Your task to perform on an android device: Open ESPN.com Image 0: 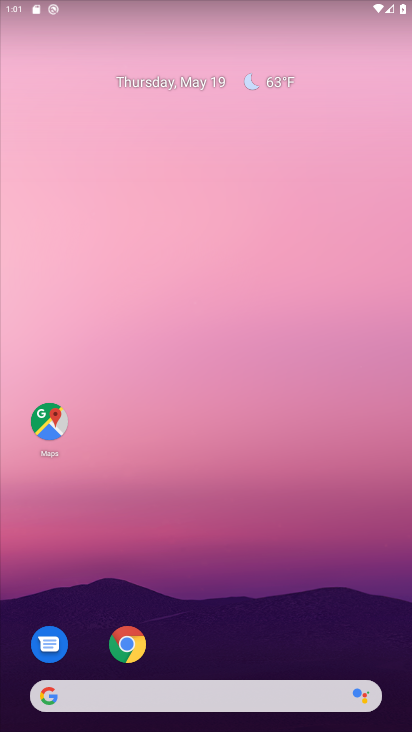
Step 0: click (130, 642)
Your task to perform on an android device: Open ESPN.com Image 1: 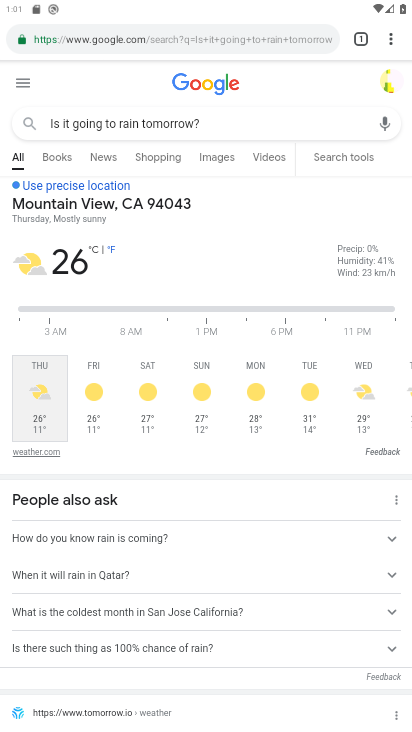
Step 1: click (131, 45)
Your task to perform on an android device: Open ESPN.com Image 2: 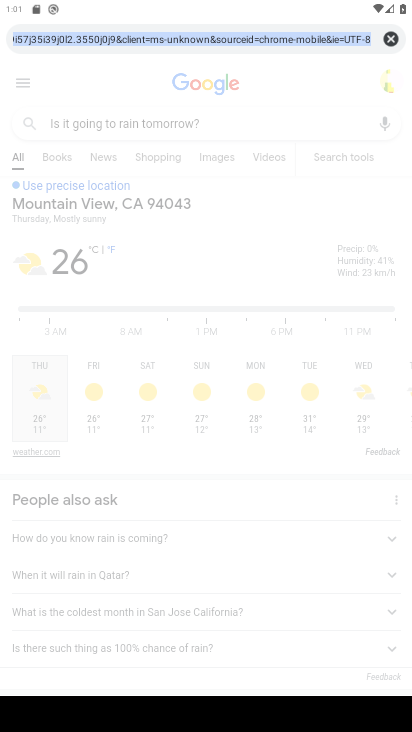
Step 2: type "ESPN.com"
Your task to perform on an android device: Open ESPN.com Image 3: 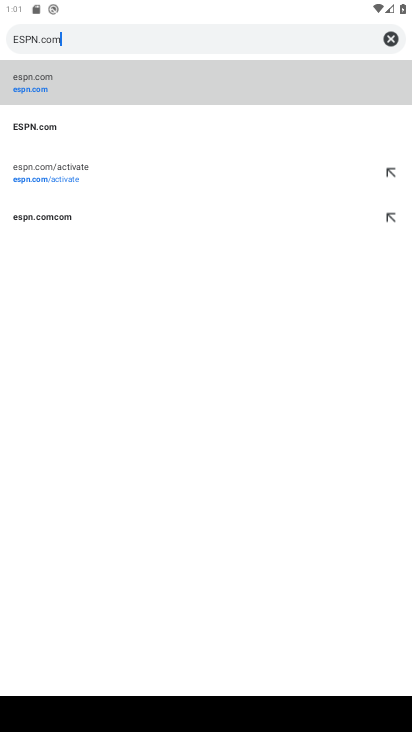
Step 3: click (58, 131)
Your task to perform on an android device: Open ESPN.com Image 4: 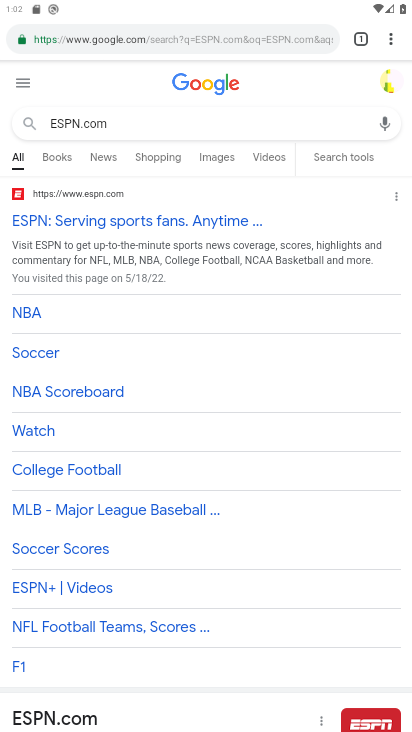
Step 4: task complete